Your task to perform on an android device: open app "Adobe Acrobat Reader: Edit PDF" (install if not already installed) Image 0: 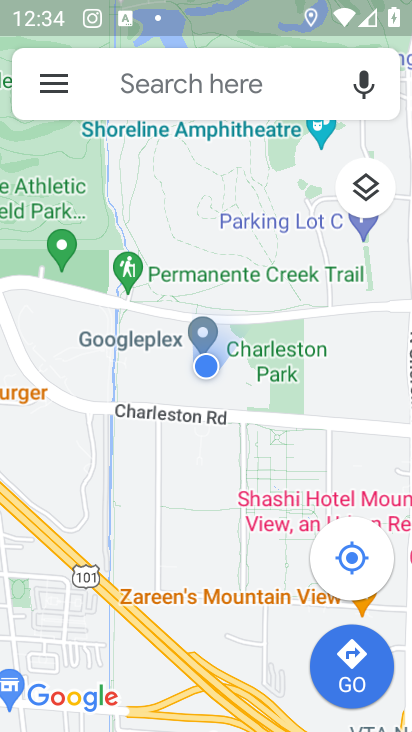
Step 0: press back button
Your task to perform on an android device: open app "Adobe Acrobat Reader: Edit PDF" (install if not already installed) Image 1: 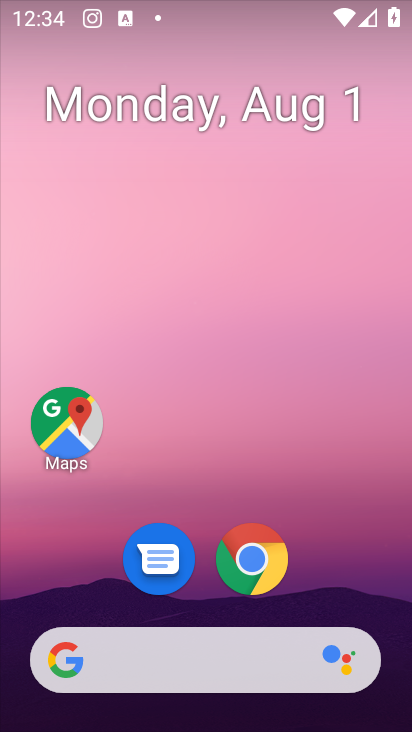
Step 1: drag from (72, 607) to (183, 63)
Your task to perform on an android device: open app "Adobe Acrobat Reader: Edit PDF" (install if not already installed) Image 2: 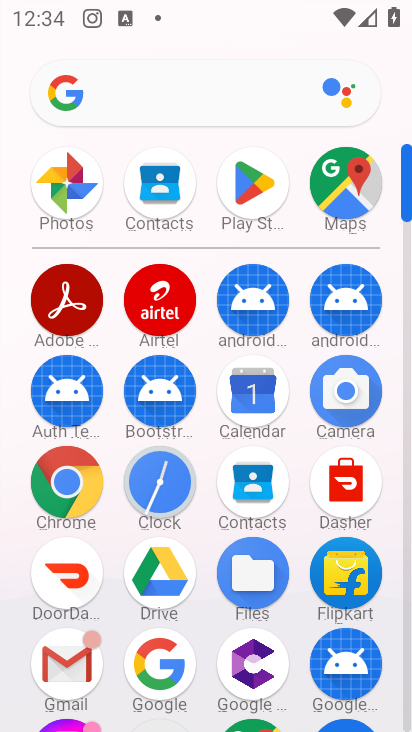
Step 2: click (250, 180)
Your task to perform on an android device: open app "Adobe Acrobat Reader: Edit PDF" (install if not already installed) Image 3: 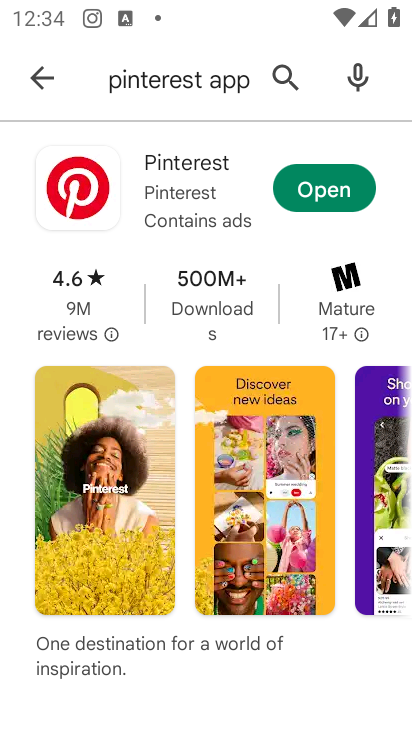
Step 3: click (275, 77)
Your task to perform on an android device: open app "Adobe Acrobat Reader: Edit PDF" (install if not already installed) Image 4: 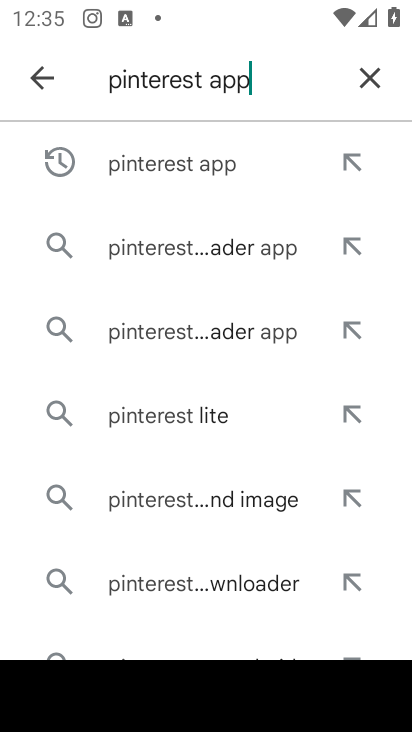
Step 4: click (363, 72)
Your task to perform on an android device: open app "Adobe Acrobat Reader: Edit PDF" (install if not already installed) Image 5: 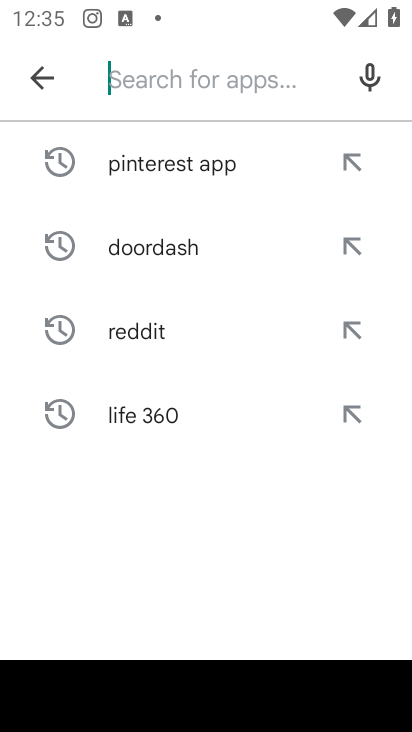
Step 5: click (166, 80)
Your task to perform on an android device: open app "Adobe Acrobat Reader: Edit PDF" (install if not already installed) Image 6: 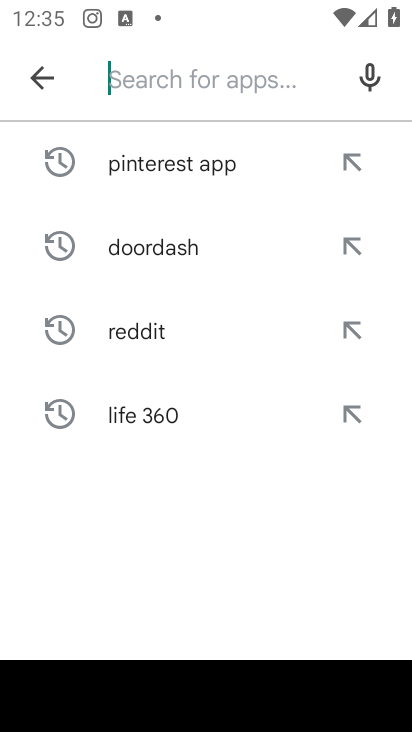
Step 6: type "adobe acrobat reader"
Your task to perform on an android device: open app "Adobe Acrobat Reader: Edit PDF" (install if not already installed) Image 7: 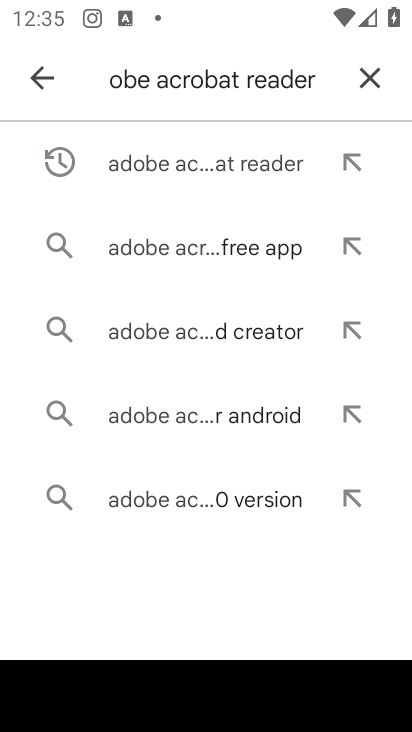
Step 7: click (219, 171)
Your task to perform on an android device: open app "Adobe Acrobat Reader: Edit PDF" (install if not already installed) Image 8: 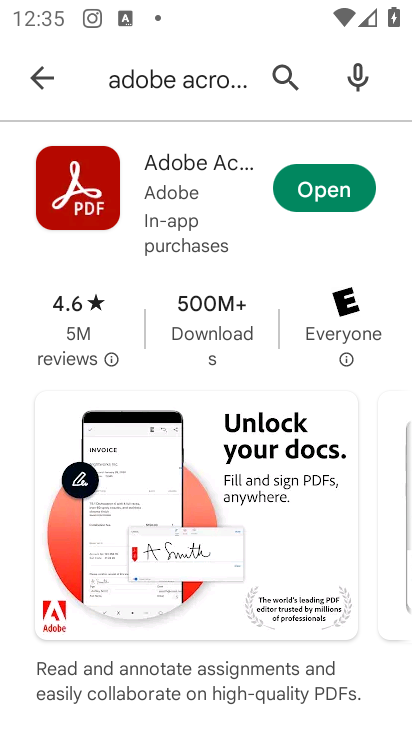
Step 8: click (311, 201)
Your task to perform on an android device: open app "Adobe Acrobat Reader: Edit PDF" (install if not already installed) Image 9: 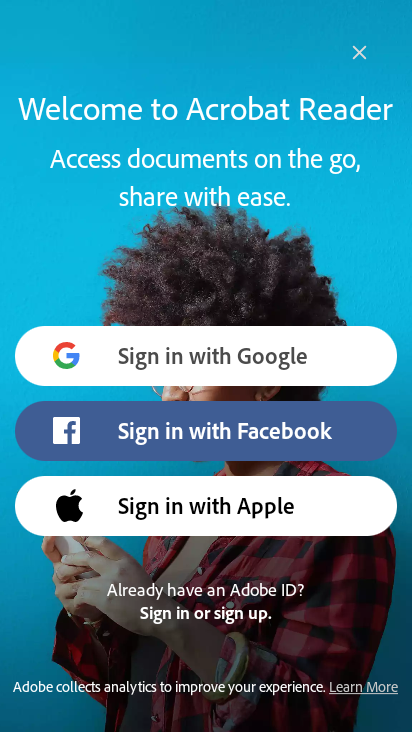
Step 9: task complete